Your task to perform on an android device: change the clock style Image 0: 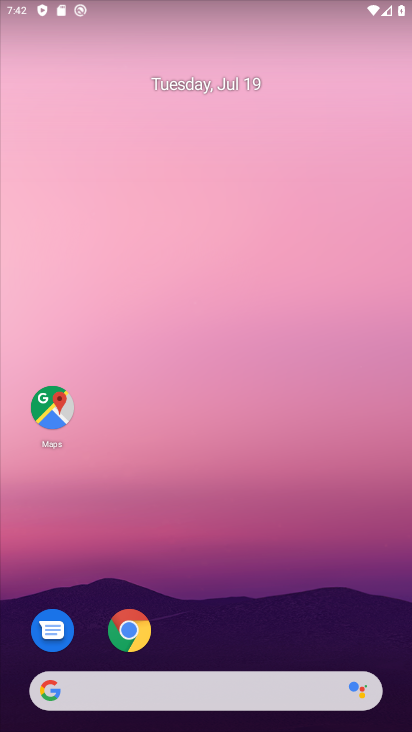
Step 0: drag from (272, 638) to (294, 173)
Your task to perform on an android device: change the clock style Image 1: 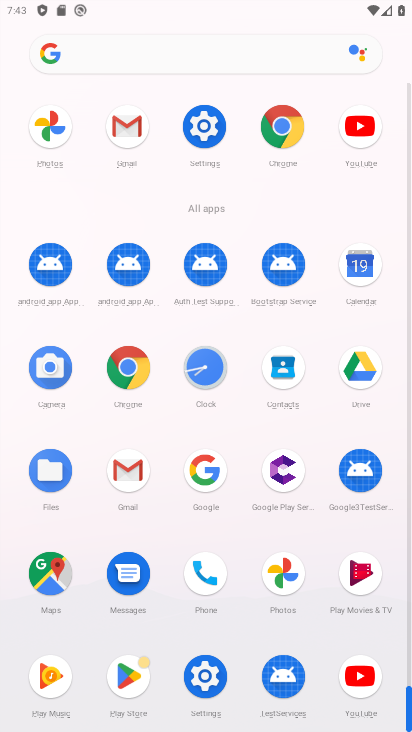
Step 1: click (216, 375)
Your task to perform on an android device: change the clock style Image 2: 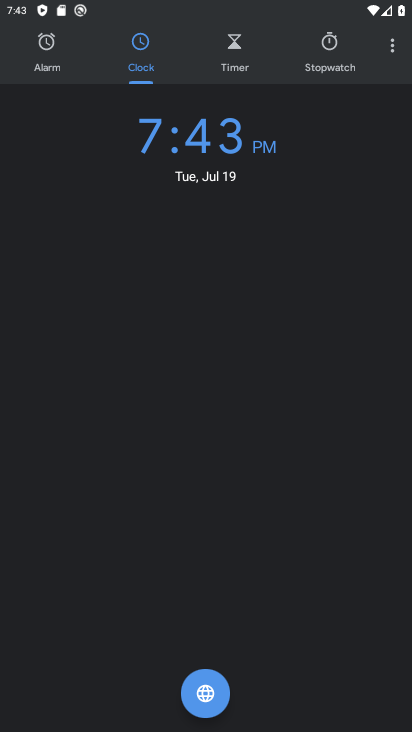
Step 2: click (396, 48)
Your task to perform on an android device: change the clock style Image 3: 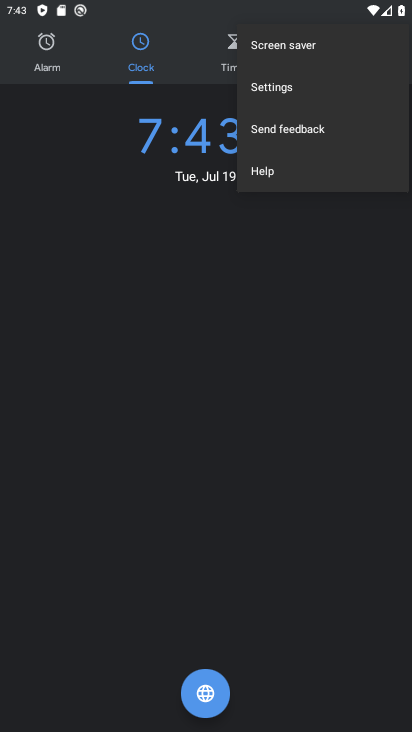
Step 3: click (280, 84)
Your task to perform on an android device: change the clock style Image 4: 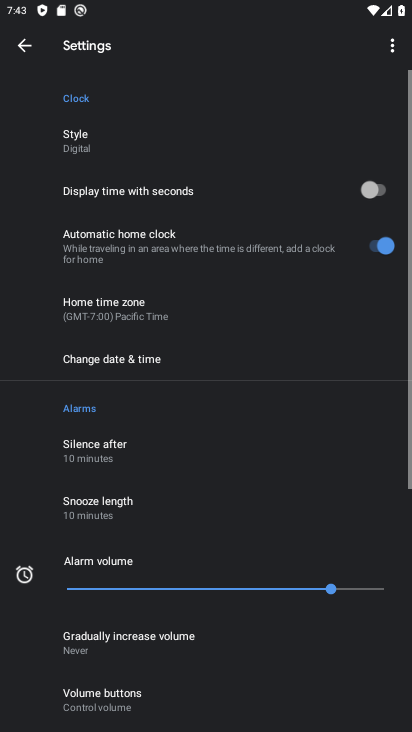
Step 4: click (163, 134)
Your task to perform on an android device: change the clock style Image 5: 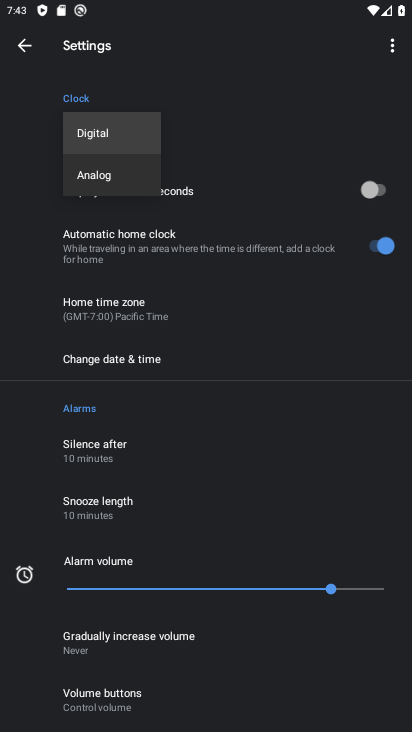
Step 5: click (100, 176)
Your task to perform on an android device: change the clock style Image 6: 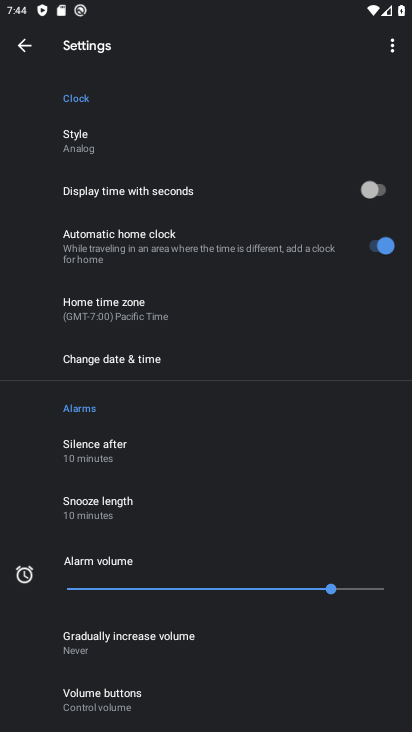
Step 6: task complete